Your task to perform on an android device: check storage Image 0: 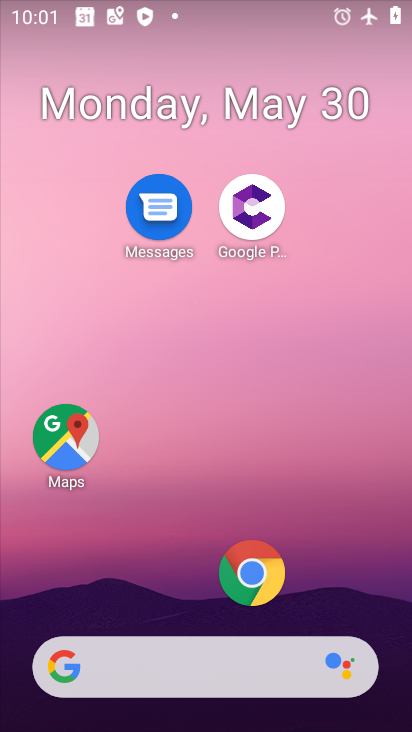
Step 0: drag from (175, 704) to (266, 112)
Your task to perform on an android device: check storage Image 1: 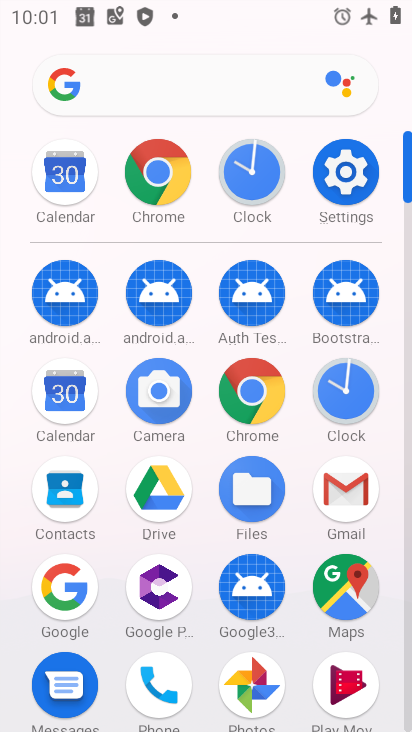
Step 1: click (358, 187)
Your task to perform on an android device: check storage Image 2: 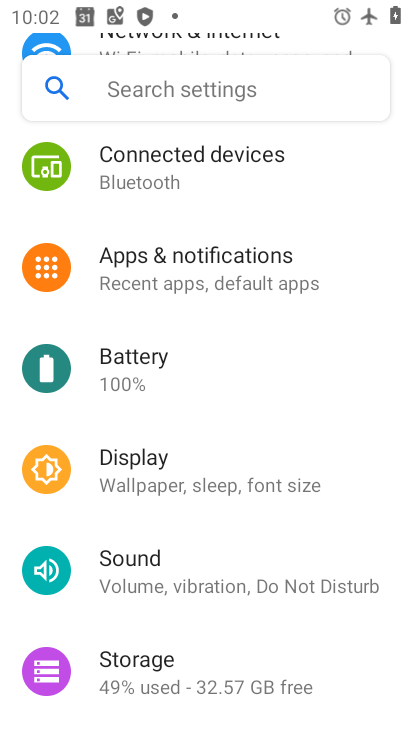
Step 2: click (208, 693)
Your task to perform on an android device: check storage Image 3: 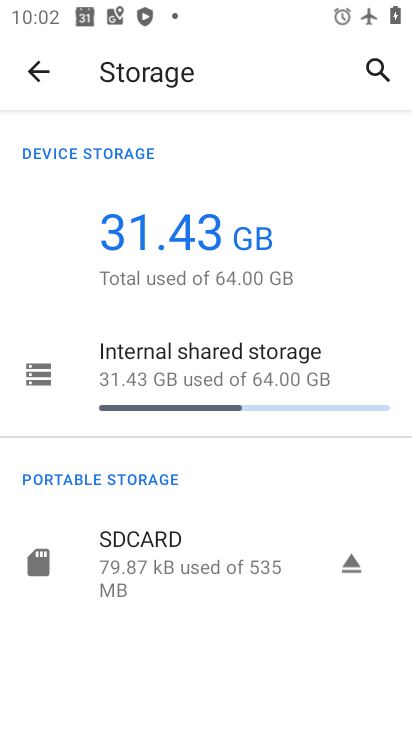
Step 3: click (179, 374)
Your task to perform on an android device: check storage Image 4: 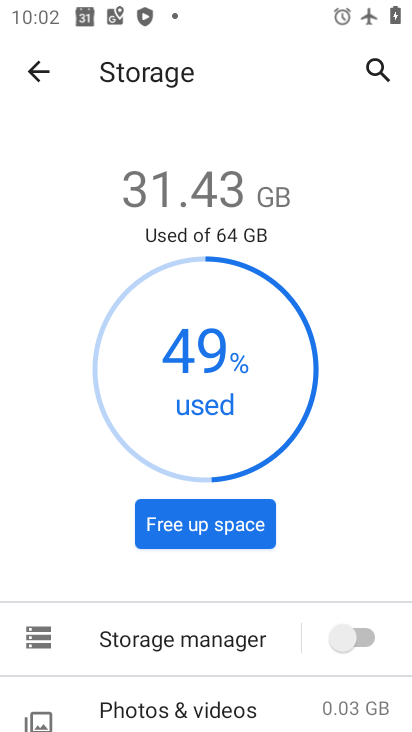
Step 4: task complete